Your task to perform on an android device: refresh tabs in the chrome app Image 0: 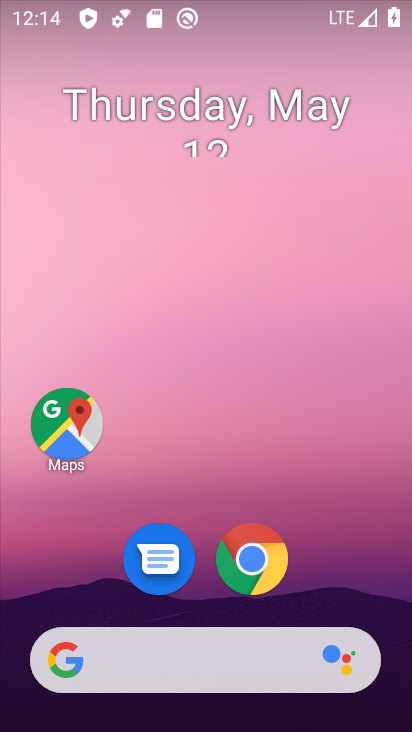
Step 0: drag from (72, 613) to (178, 212)
Your task to perform on an android device: refresh tabs in the chrome app Image 1: 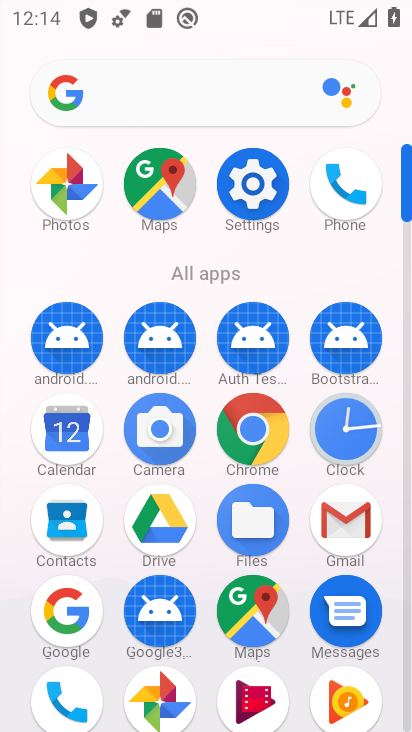
Step 1: click (254, 421)
Your task to perform on an android device: refresh tabs in the chrome app Image 2: 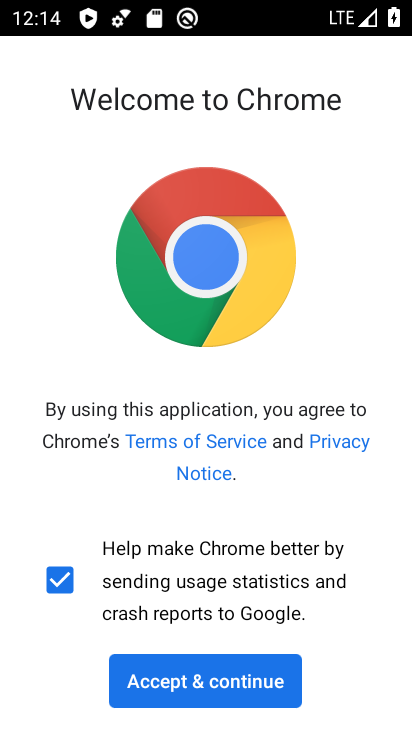
Step 2: click (242, 666)
Your task to perform on an android device: refresh tabs in the chrome app Image 3: 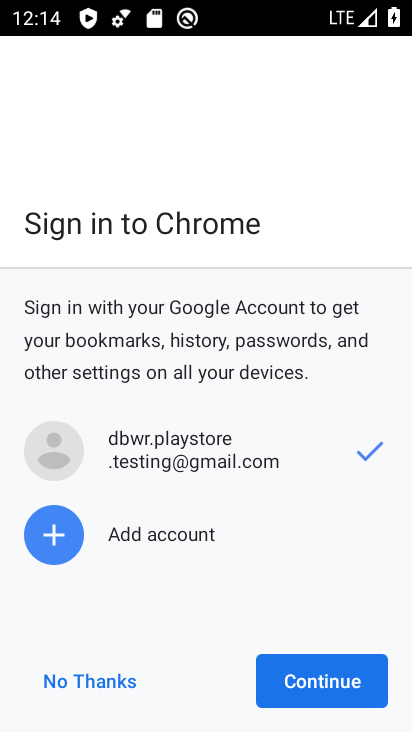
Step 3: click (311, 685)
Your task to perform on an android device: refresh tabs in the chrome app Image 4: 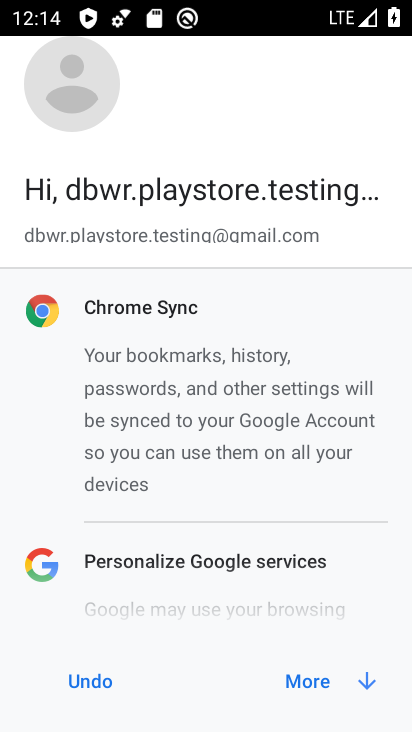
Step 4: click (327, 688)
Your task to perform on an android device: refresh tabs in the chrome app Image 5: 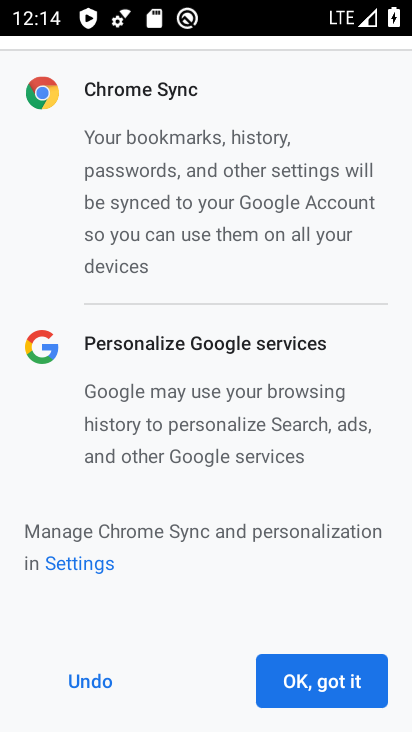
Step 5: click (328, 686)
Your task to perform on an android device: refresh tabs in the chrome app Image 6: 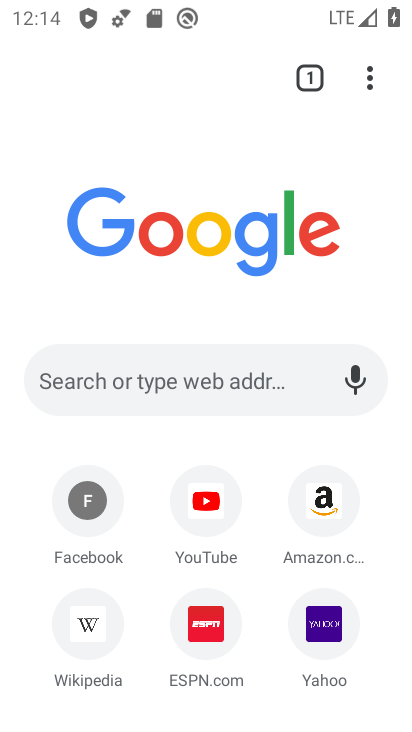
Step 6: drag from (376, 100) to (392, 64)
Your task to perform on an android device: refresh tabs in the chrome app Image 7: 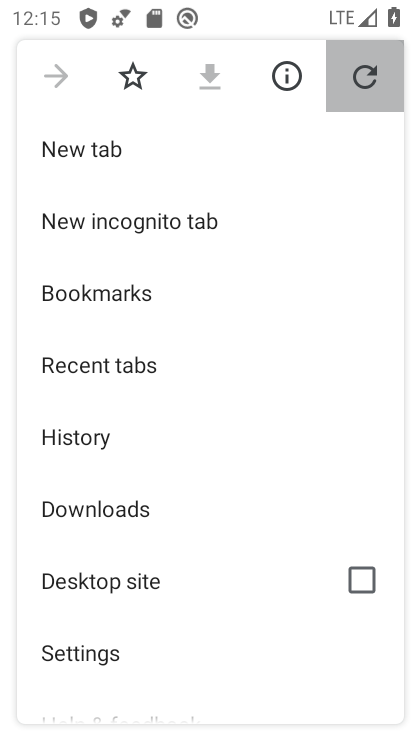
Step 7: click (378, 66)
Your task to perform on an android device: refresh tabs in the chrome app Image 8: 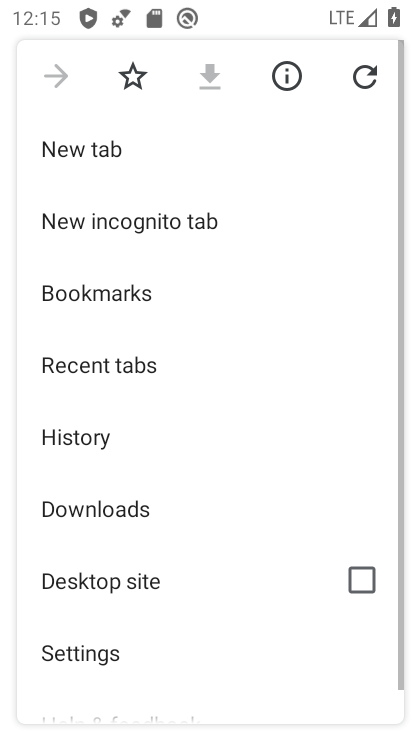
Step 8: click (375, 66)
Your task to perform on an android device: refresh tabs in the chrome app Image 9: 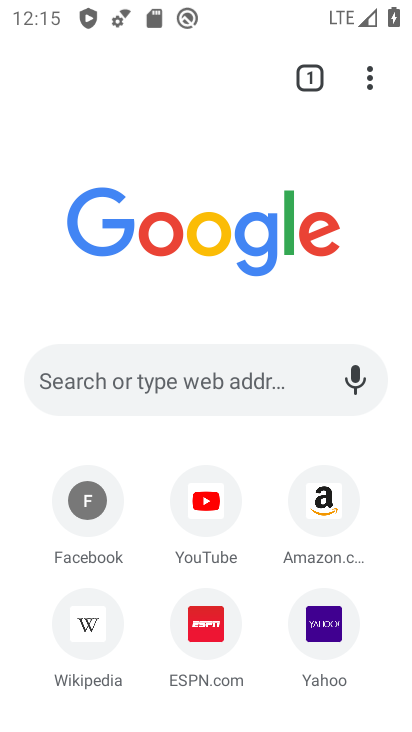
Step 9: task complete